Your task to perform on an android device: What's the weather going to be tomorrow? Image 0: 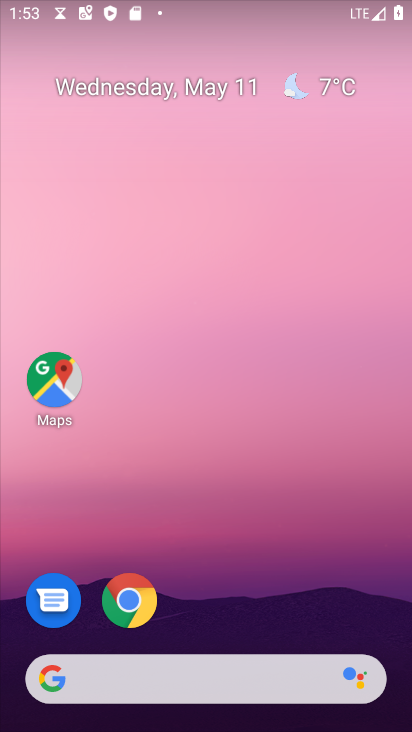
Step 0: click (333, 80)
Your task to perform on an android device: What's the weather going to be tomorrow? Image 1: 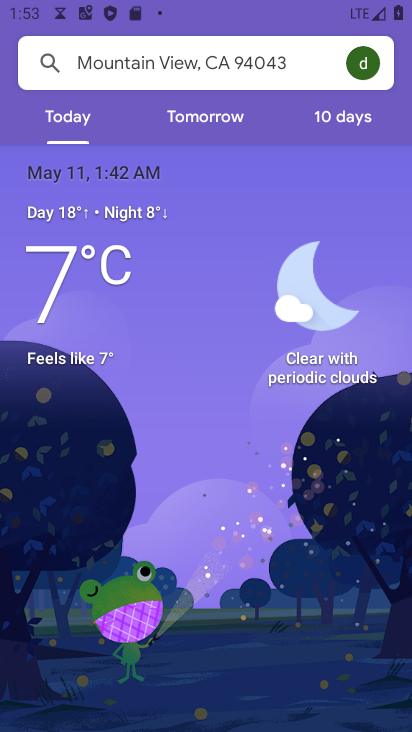
Step 1: click (206, 109)
Your task to perform on an android device: What's the weather going to be tomorrow? Image 2: 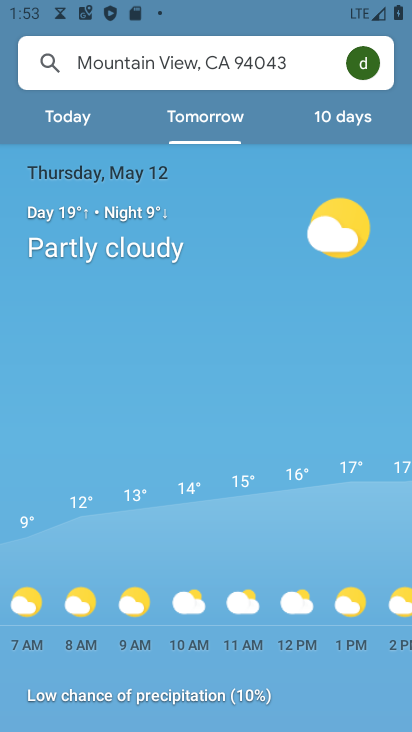
Step 2: drag from (347, 565) to (74, 599)
Your task to perform on an android device: What's the weather going to be tomorrow? Image 3: 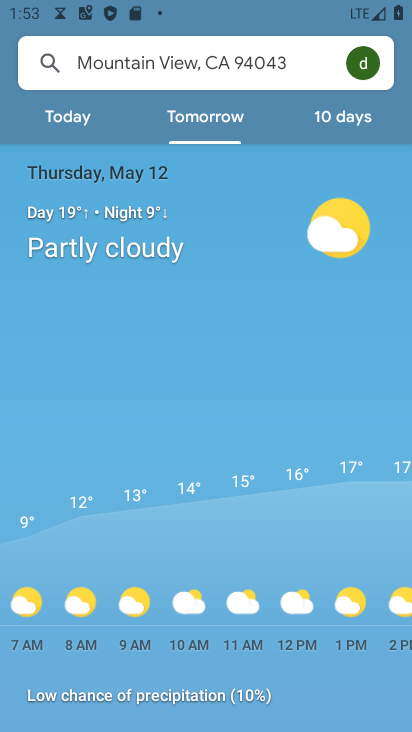
Step 3: drag from (325, 533) to (19, 515)
Your task to perform on an android device: What's the weather going to be tomorrow? Image 4: 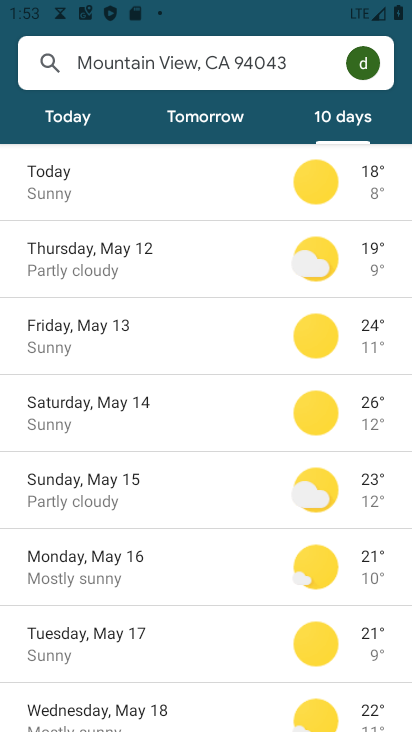
Step 4: click (205, 119)
Your task to perform on an android device: What's the weather going to be tomorrow? Image 5: 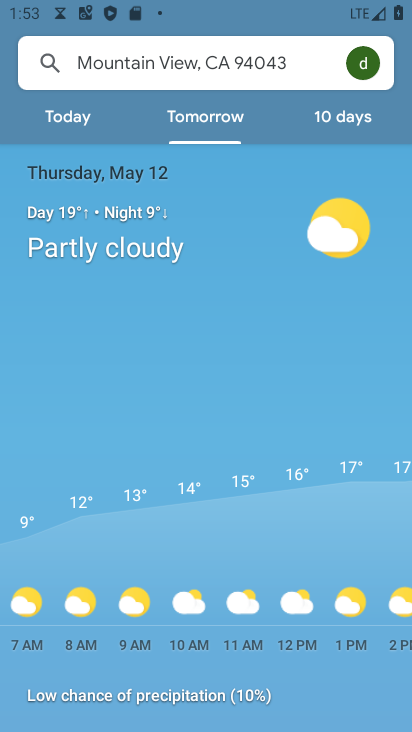
Step 5: task complete